Your task to perform on an android device: open wifi settings Image 0: 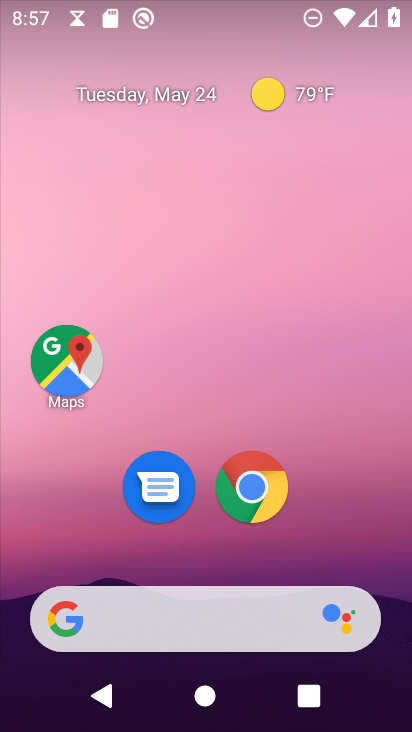
Step 0: drag from (346, 11) to (268, 375)
Your task to perform on an android device: open wifi settings Image 1: 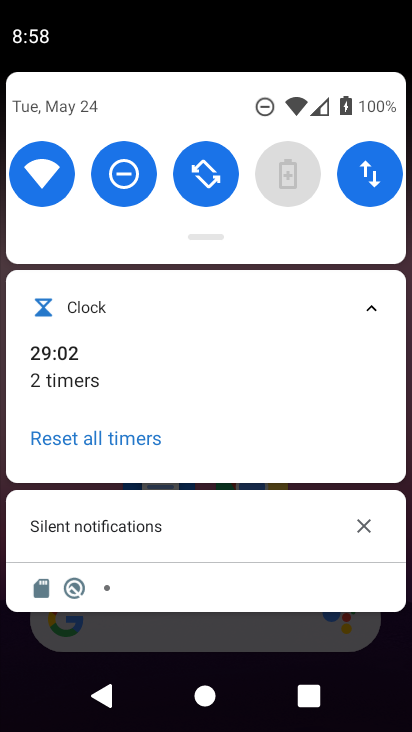
Step 1: click (46, 183)
Your task to perform on an android device: open wifi settings Image 2: 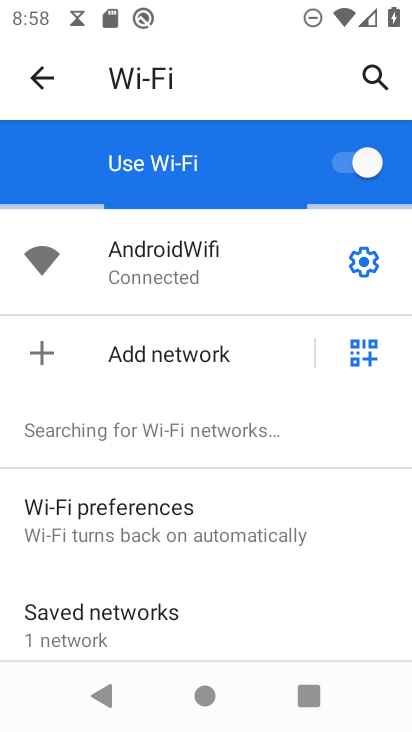
Step 2: click (362, 270)
Your task to perform on an android device: open wifi settings Image 3: 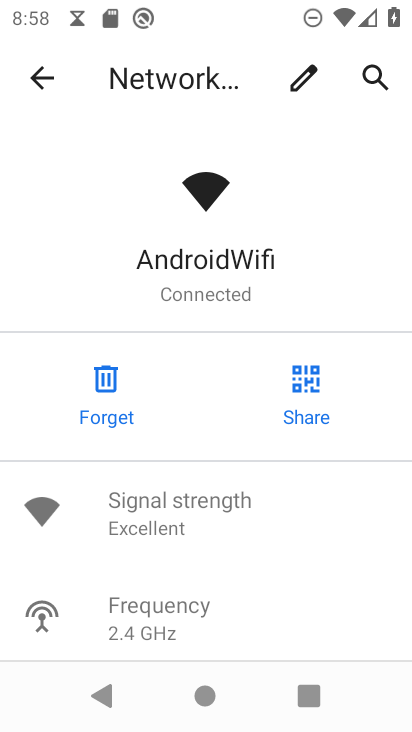
Step 3: task complete